Your task to perform on an android device: toggle airplane mode Image 0: 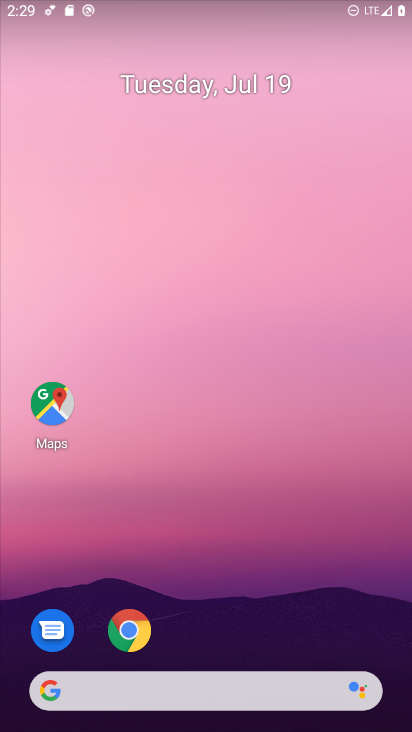
Step 0: drag from (362, 616) to (331, 74)
Your task to perform on an android device: toggle airplane mode Image 1: 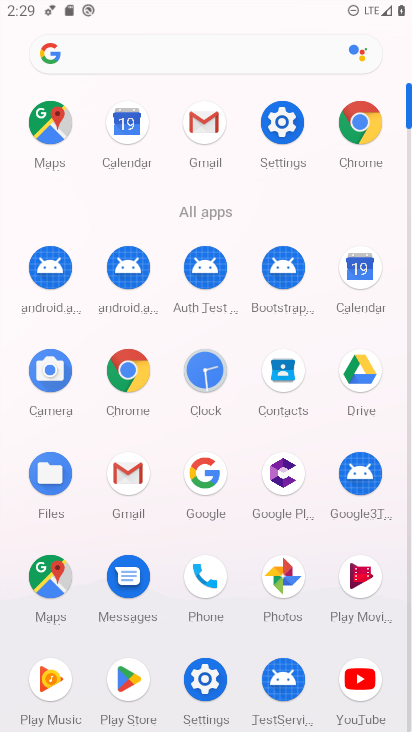
Step 1: click (205, 681)
Your task to perform on an android device: toggle airplane mode Image 2: 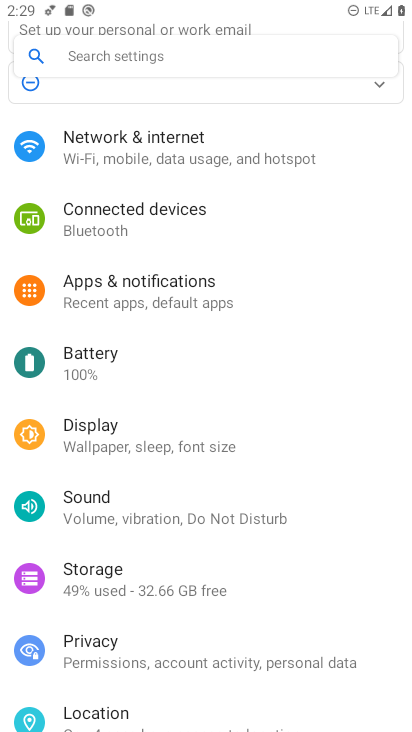
Step 2: click (119, 141)
Your task to perform on an android device: toggle airplane mode Image 3: 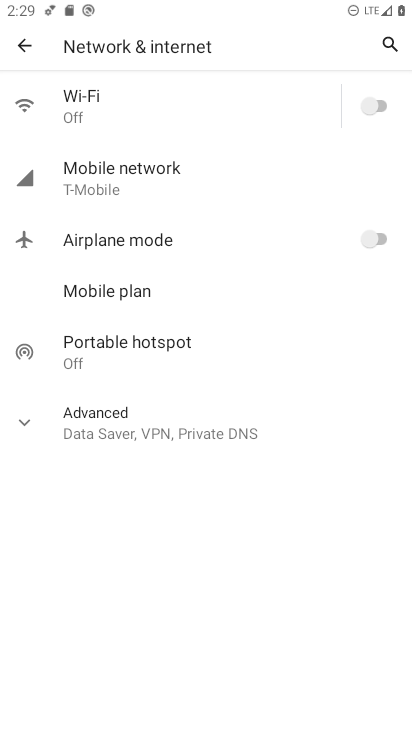
Step 3: click (381, 240)
Your task to perform on an android device: toggle airplane mode Image 4: 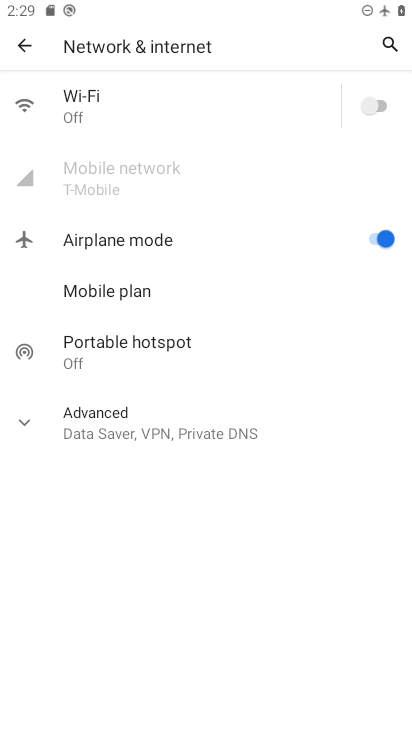
Step 4: task complete